Your task to perform on an android device: Go to Reddit.com Image 0: 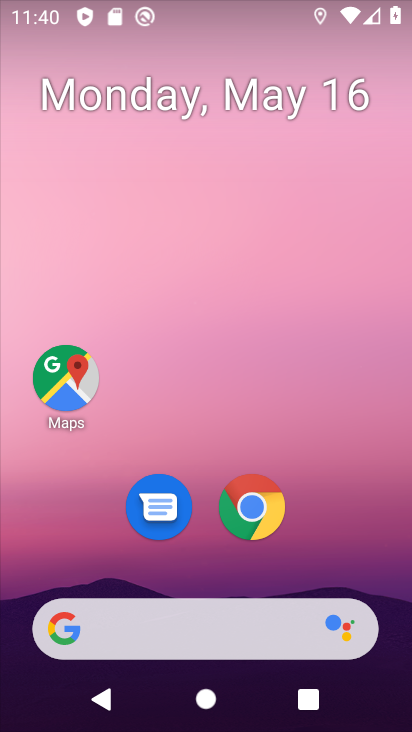
Step 0: drag from (266, 590) to (242, 183)
Your task to perform on an android device: Go to Reddit.com Image 1: 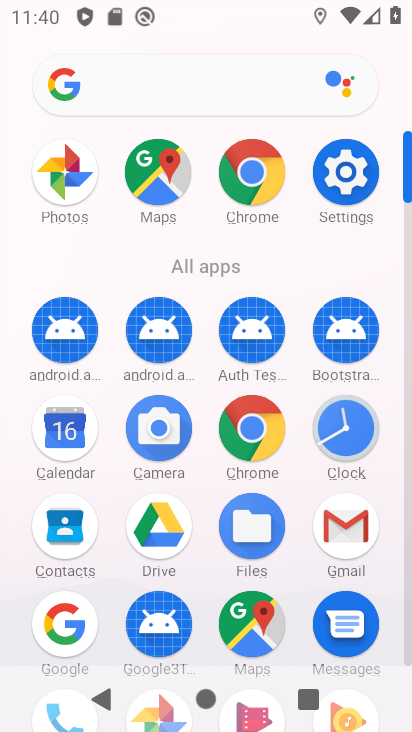
Step 1: click (261, 219)
Your task to perform on an android device: Go to Reddit.com Image 2: 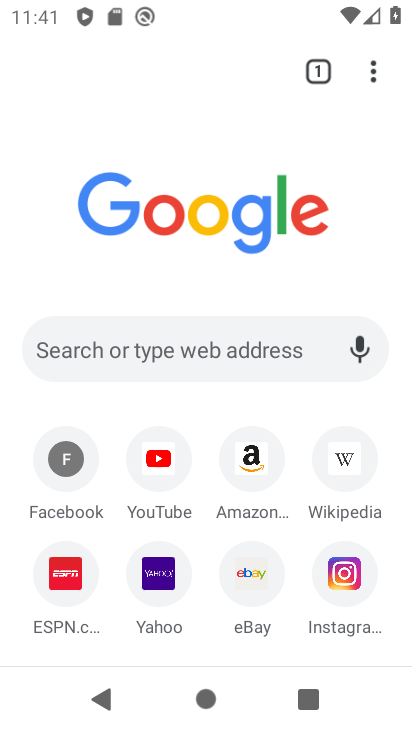
Step 2: click (217, 362)
Your task to perform on an android device: Go to Reddit.com Image 3: 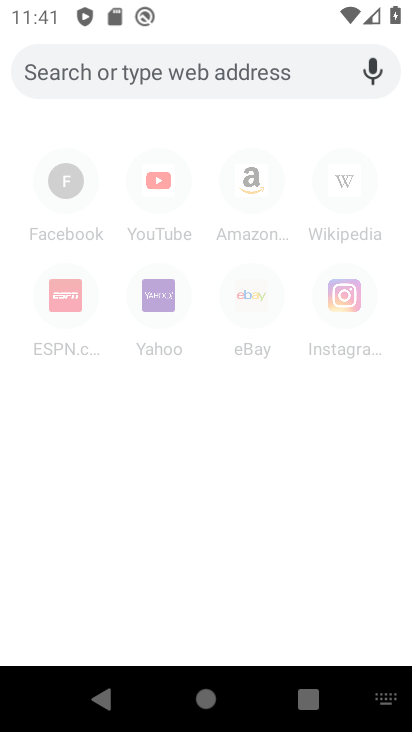
Step 3: type "reddit"
Your task to perform on an android device: Go to Reddit.com Image 4: 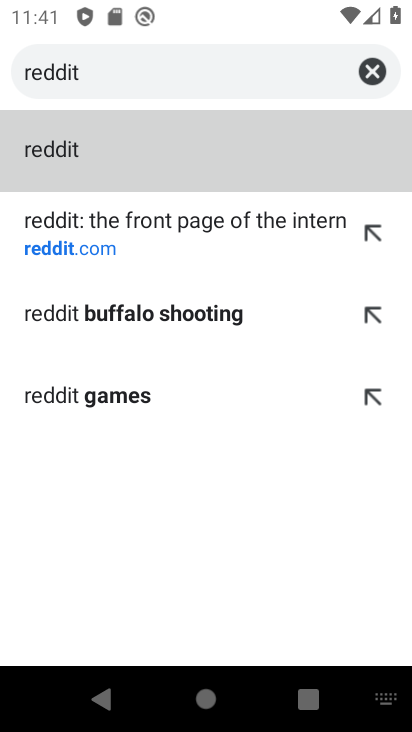
Step 4: click (212, 246)
Your task to perform on an android device: Go to Reddit.com Image 5: 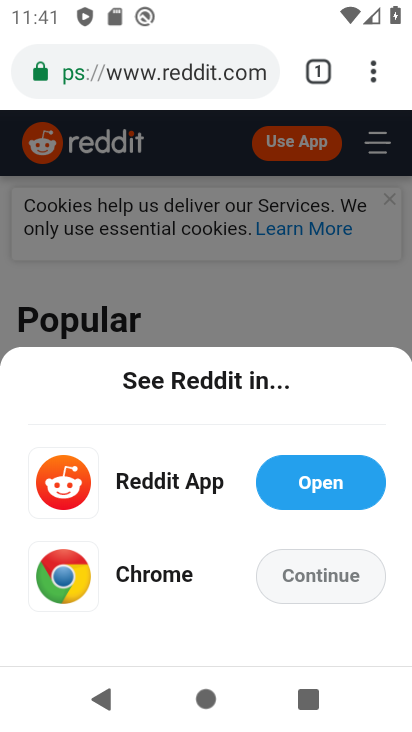
Step 5: click (295, 595)
Your task to perform on an android device: Go to Reddit.com Image 6: 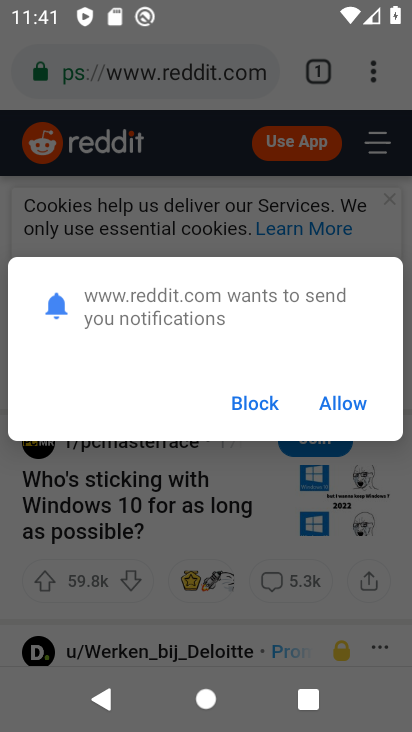
Step 6: task complete